Your task to perform on an android device: toggle show notifications on the lock screen Image 0: 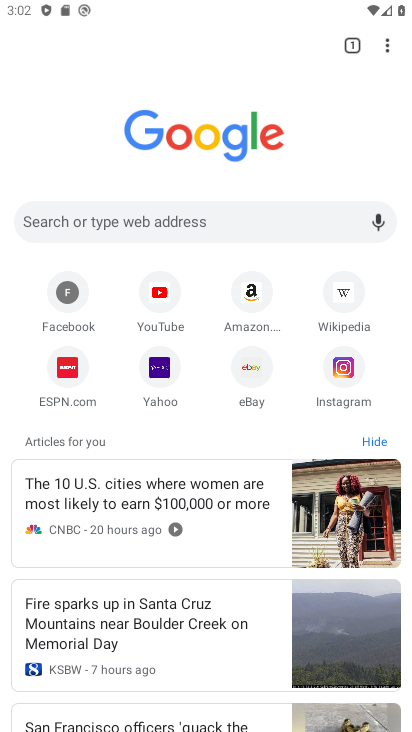
Step 0: press home button
Your task to perform on an android device: toggle show notifications on the lock screen Image 1: 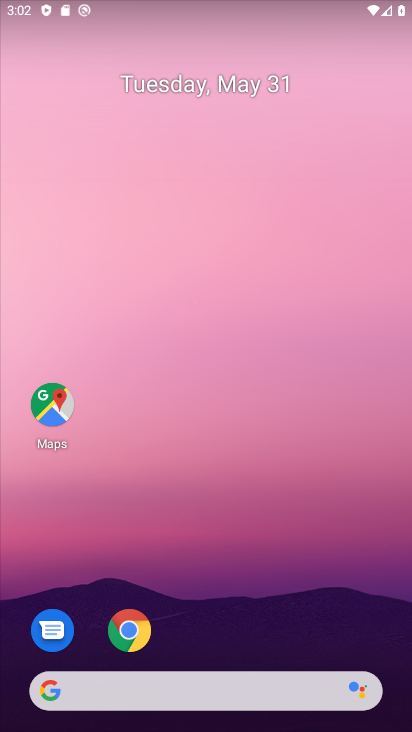
Step 1: drag from (259, 609) to (269, 46)
Your task to perform on an android device: toggle show notifications on the lock screen Image 2: 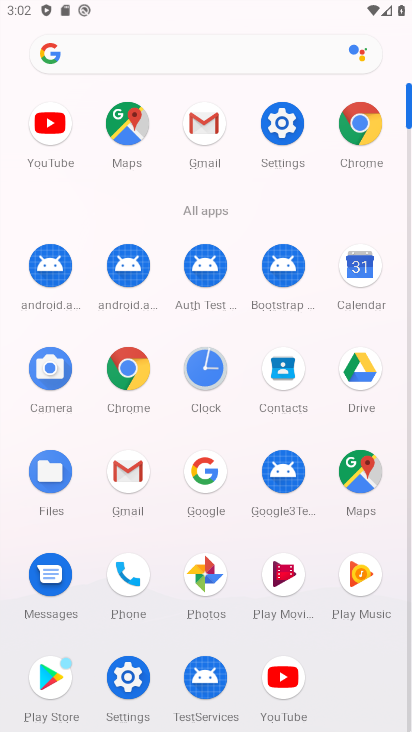
Step 2: click (284, 127)
Your task to perform on an android device: toggle show notifications on the lock screen Image 3: 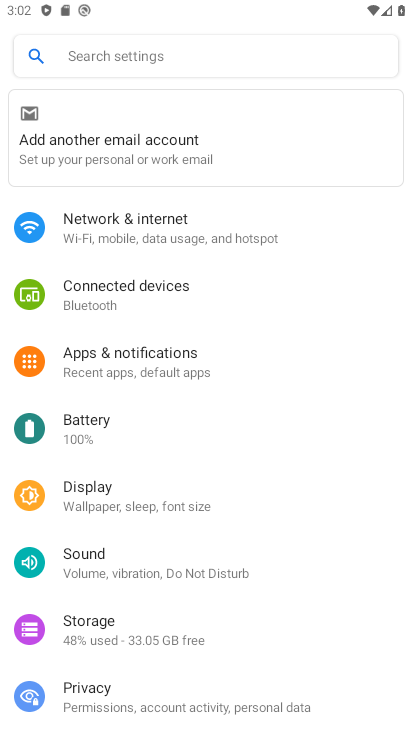
Step 3: click (74, 351)
Your task to perform on an android device: toggle show notifications on the lock screen Image 4: 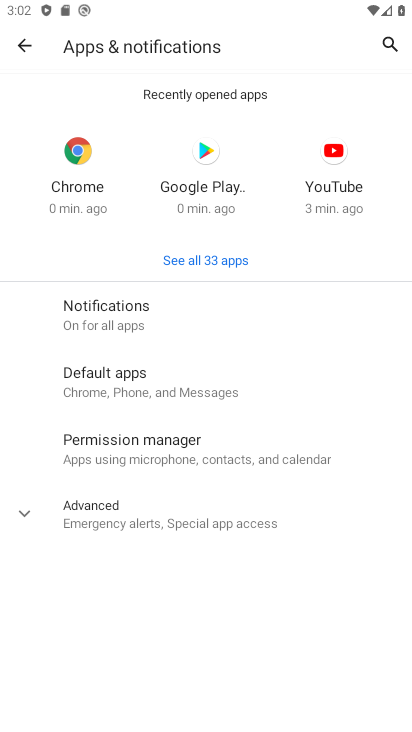
Step 4: click (154, 316)
Your task to perform on an android device: toggle show notifications on the lock screen Image 5: 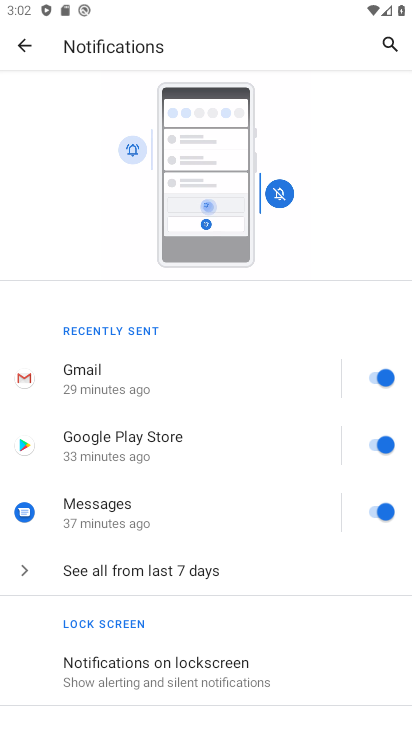
Step 5: click (170, 682)
Your task to perform on an android device: toggle show notifications on the lock screen Image 6: 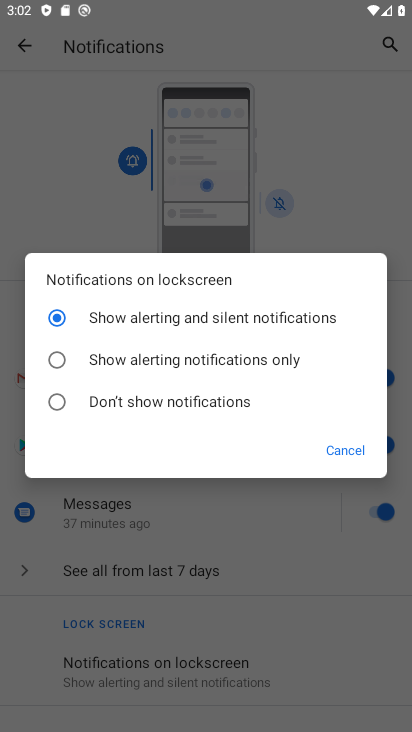
Step 6: click (142, 360)
Your task to perform on an android device: toggle show notifications on the lock screen Image 7: 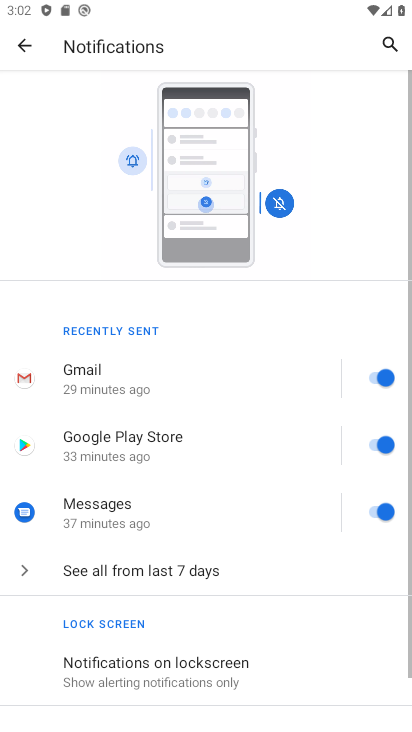
Step 7: task complete